Your task to perform on an android device: Open Google Chrome and open the bookmarks view Image 0: 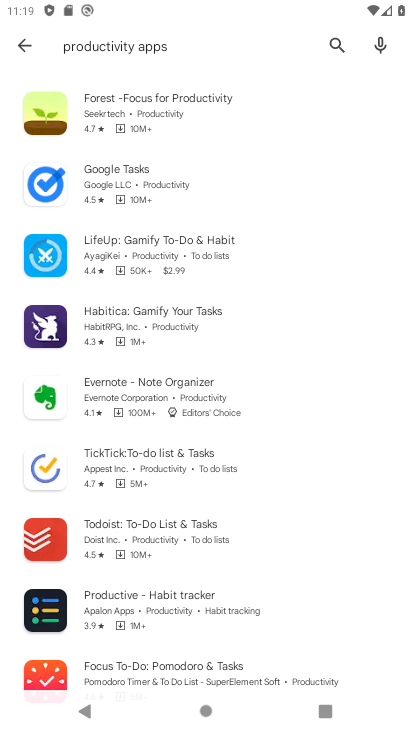
Step 0: press home button
Your task to perform on an android device: Open Google Chrome and open the bookmarks view Image 1: 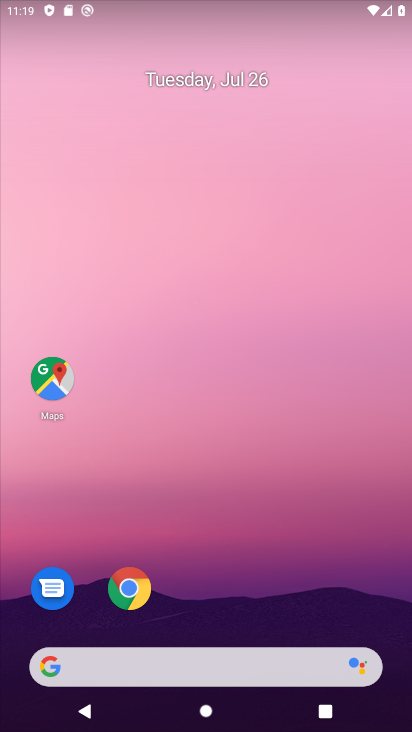
Step 1: click (118, 572)
Your task to perform on an android device: Open Google Chrome and open the bookmarks view Image 2: 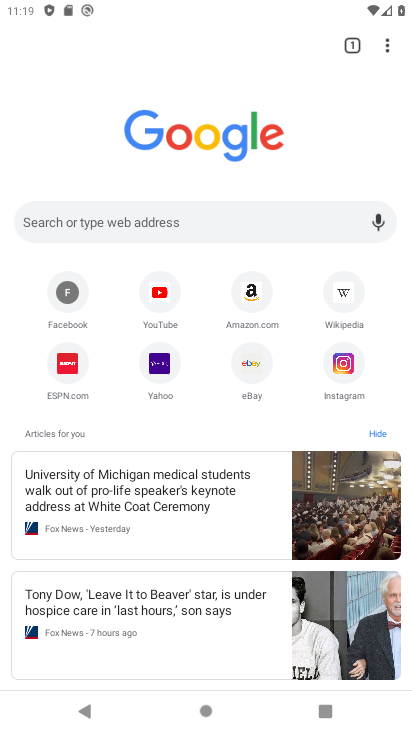
Step 2: click (387, 52)
Your task to perform on an android device: Open Google Chrome and open the bookmarks view Image 3: 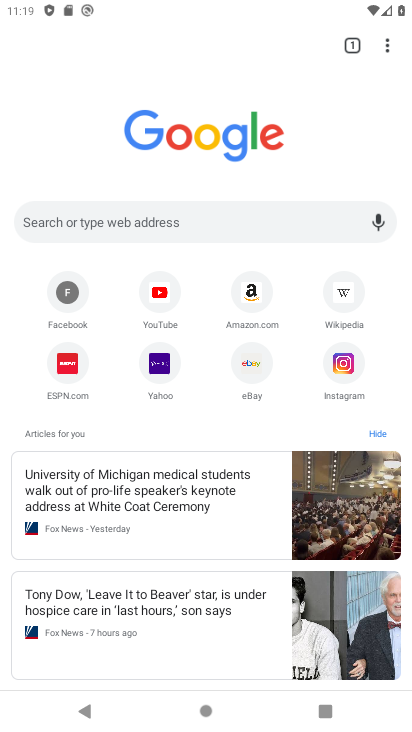
Step 3: click (390, 47)
Your task to perform on an android device: Open Google Chrome and open the bookmarks view Image 4: 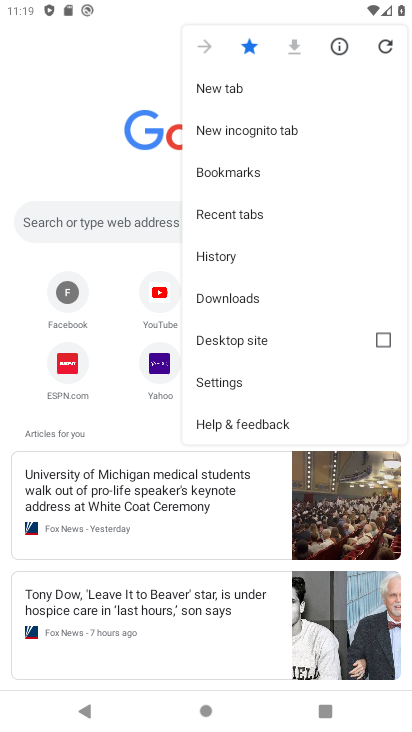
Step 4: click (218, 163)
Your task to perform on an android device: Open Google Chrome and open the bookmarks view Image 5: 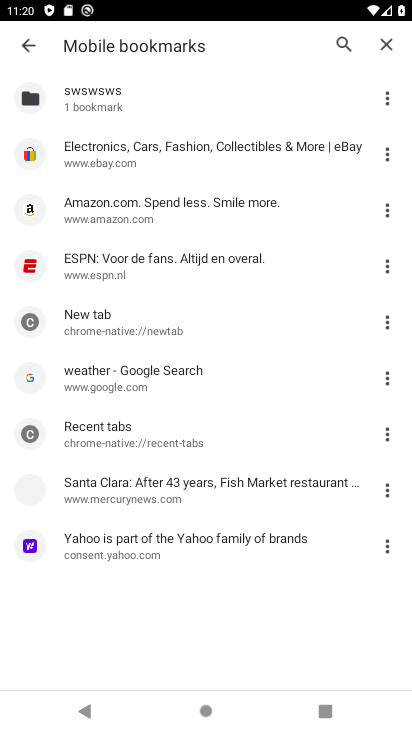
Step 5: task complete